Your task to perform on an android device: delete location history Image 0: 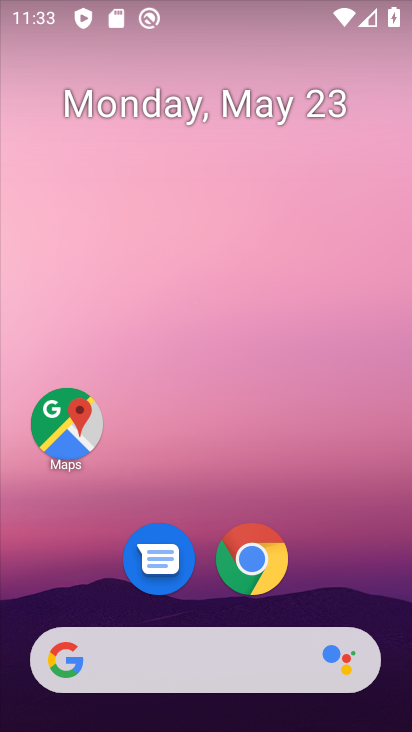
Step 0: drag from (392, 689) to (356, 166)
Your task to perform on an android device: delete location history Image 1: 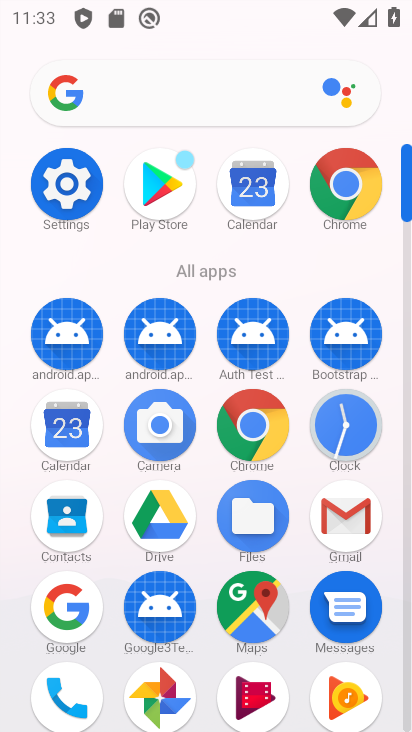
Step 1: click (269, 596)
Your task to perform on an android device: delete location history Image 2: 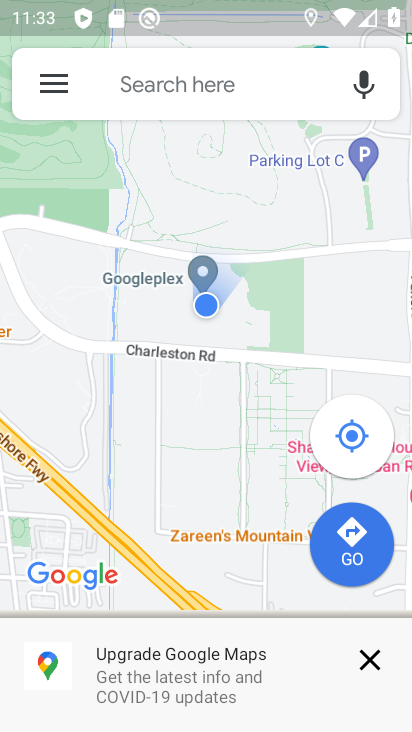
Step 2: click (42, 78)
Your task to perform on an android device: delete location history Image 3: 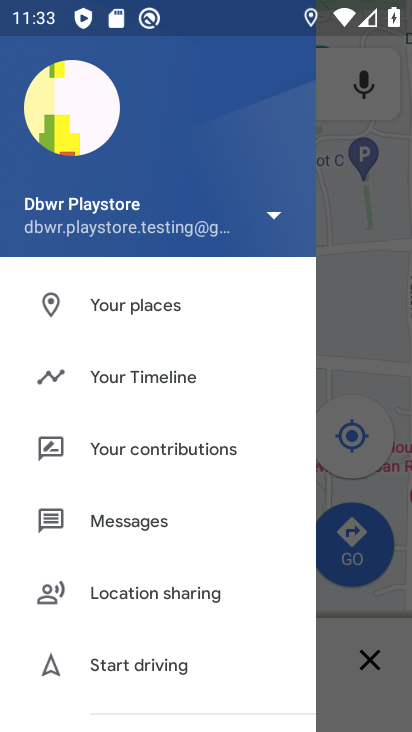
Step 3: click (122, 382)
Your task to perform on an android device: delete location history Image 4: 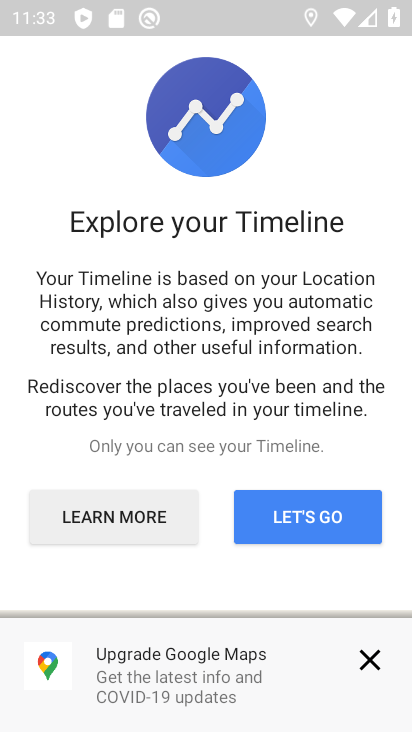
Step 4: click (328, 527)
Your task to perform on an android device: delete location history Image 5: 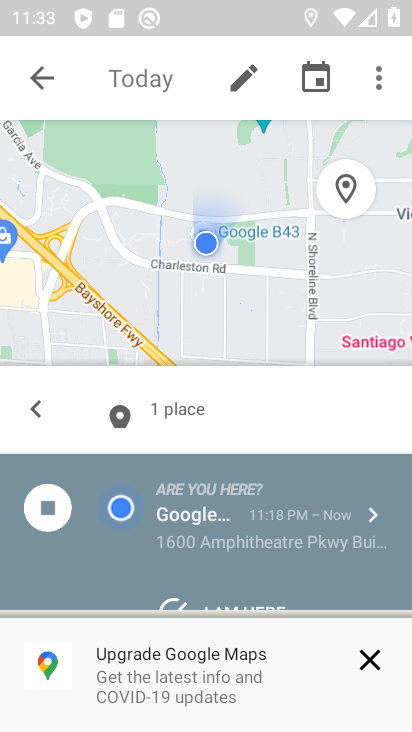
Step 5: click (380, 75)
Your task to perform on an android device: delete location history Image 6: 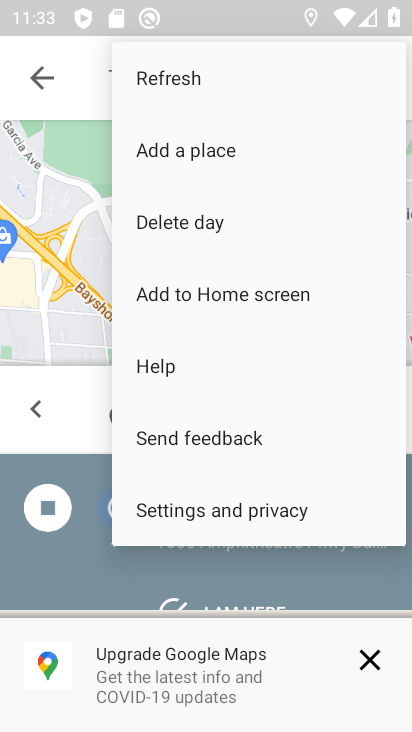
Step 6: click (203, 506)
Your task to perform on an android device: delete location history Image 7: 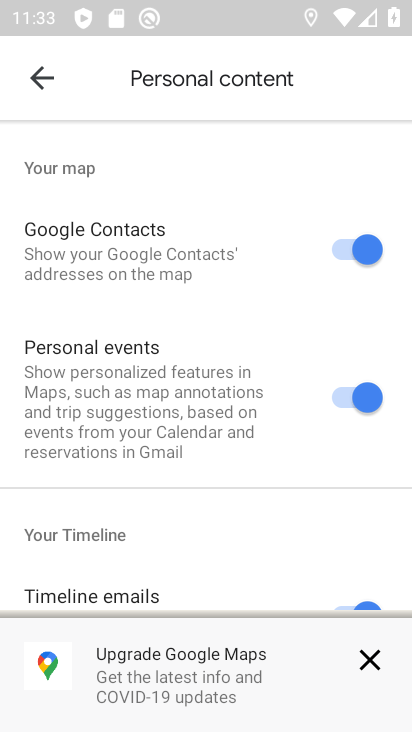
Step 7: drag from (266, 585) to (240, 267)
Your task to perform on an android device: delete location history Image 8: 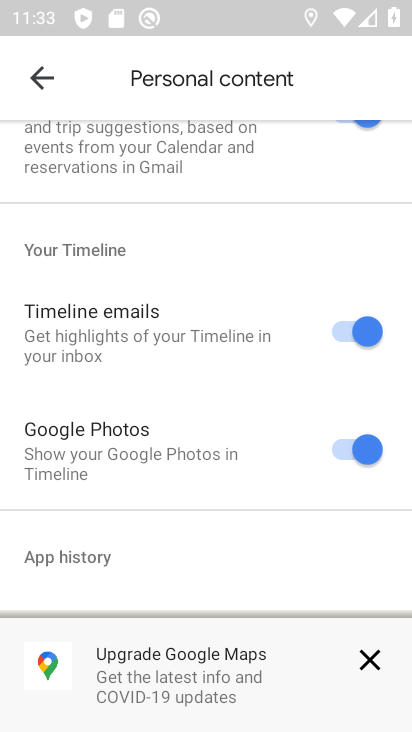
Step 8: drag from (219, 576) to (210, 266)
Your task to perform on an android device: delete location history Image 9: 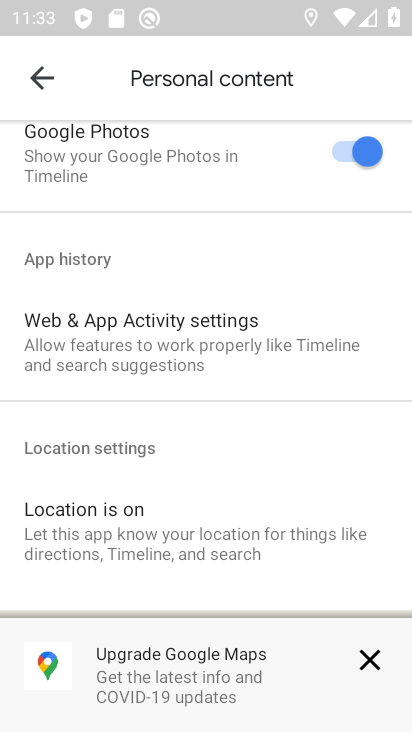
Step 9: drag from (325, 585) to (306, 189)
Your task to perform on an android device: delete location history Image 10: 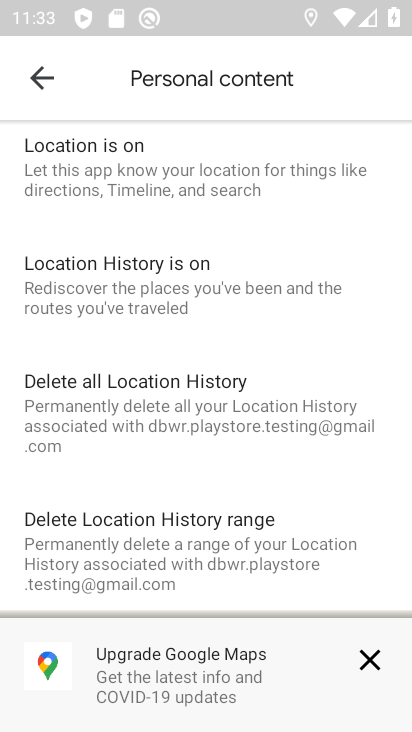
Step 10: drag from (245, 589) to (244, 310)
Your task to perform on an android device: delete location history Image 11: 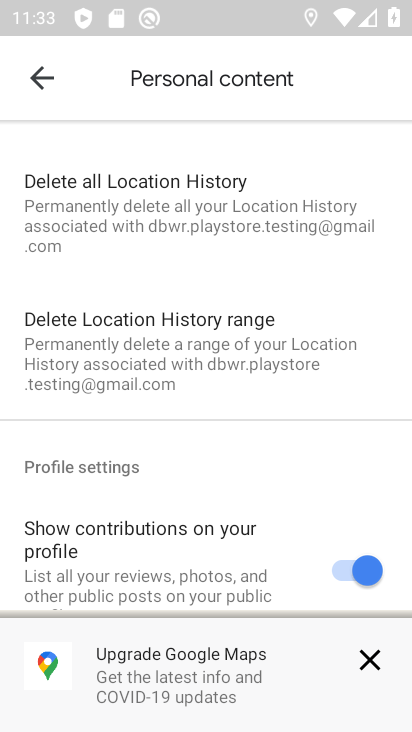
Step 11: drag from (258, 551) to (175, 264)
Your task to perform on an android device: delete location history Image 12: 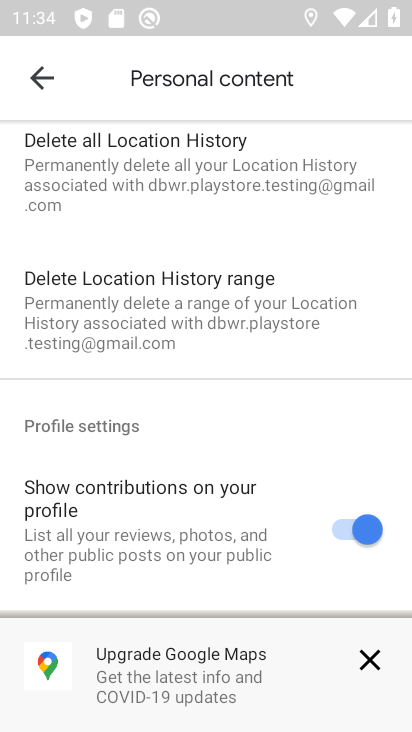
Step 12: click (131, 156)
Your task to perform on an android device: delete location history Image 13: 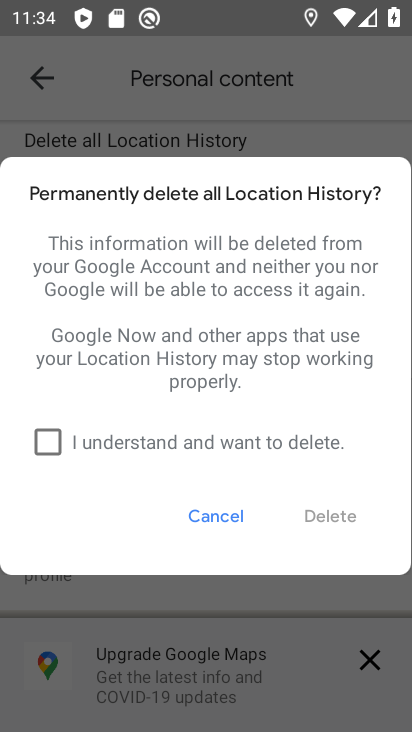
Step 13: click (45, 434)
Your task to perform on an android device: delete location history Image 14: 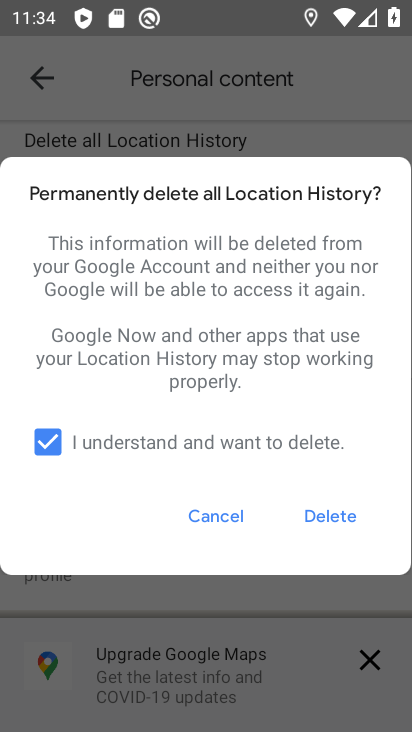
Step 14: click (353, 515)
Your task to perform on an android device: delete location history Image 15: 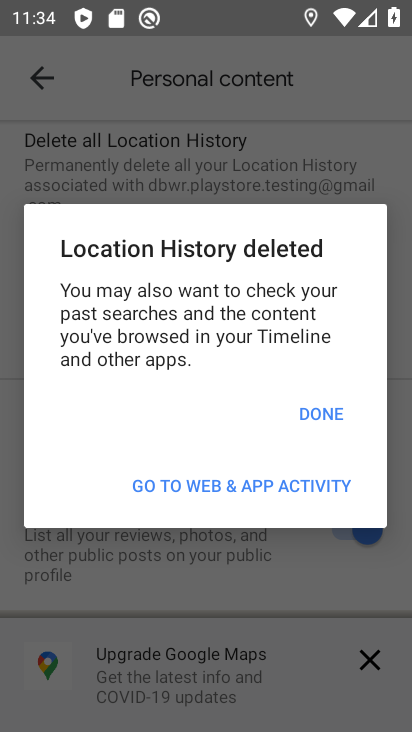
Step 15: click (321, 403)
Your task to perform on an android device: delete location history Image 16: 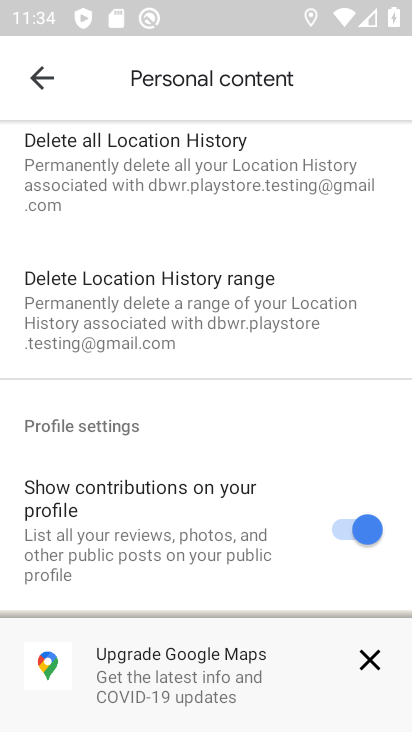
Step 16: task complete